Your task to perform on an android device: turn on showing notifications on the lock screen Image 0: 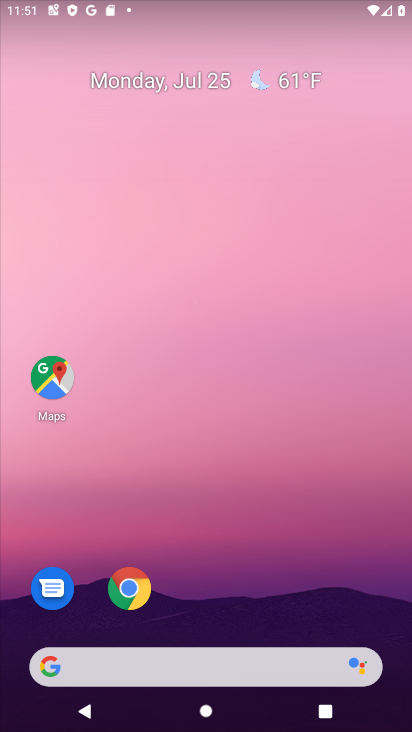
Step 0: drag from (219, 572) to (245, 106)
Your task to perform on an android device: turn on showing notifications on the lock screen Image 1: 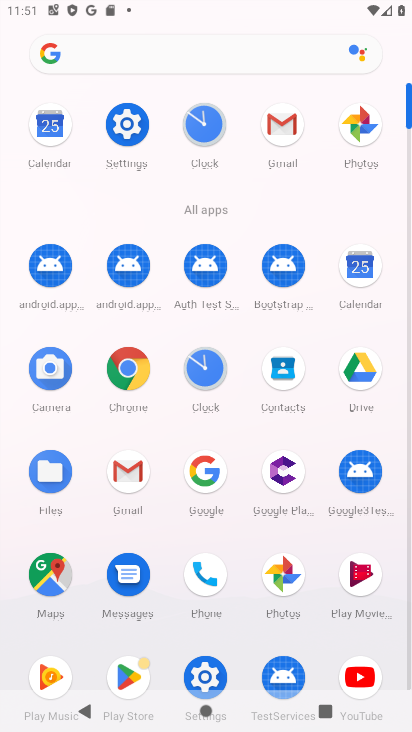
Step 1: click (121, 116)
Your task to perform on an android device: turn on showing notifications on the lock screen Image 2: 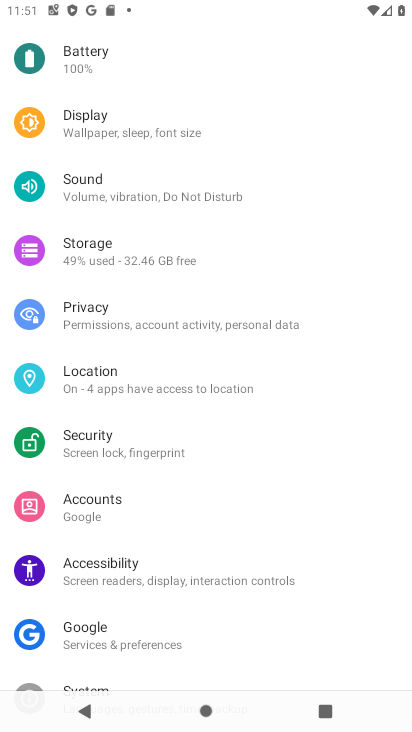
Step 2: drag from (113, 103) to (159, 517)
Your task to perform on an android device: turn on showing notifications on the lock screen Image 3: 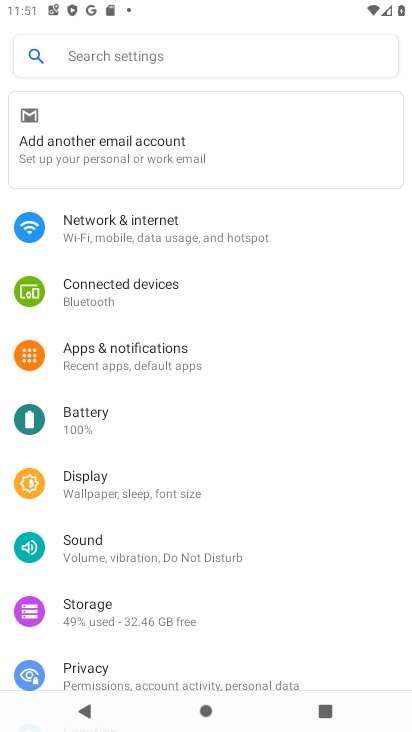
Step 3: click (193, 347)
Your task to perform on an android device: turn on showing notifications on the lock screen Image 4: 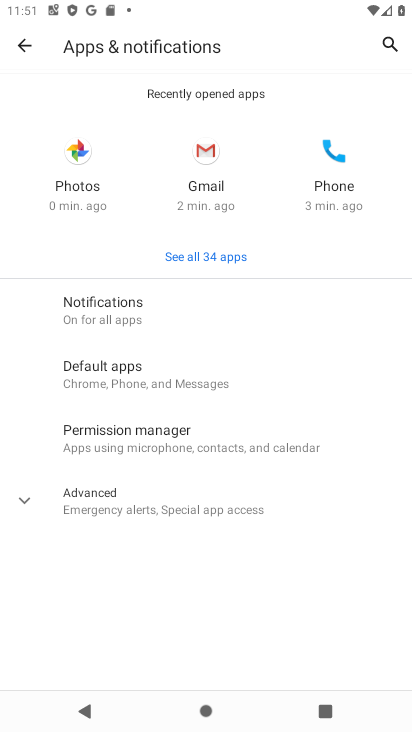
Step 4: click (96, 314)
Your task to perform on an android device: turn on showing notifications on the lock screen Image 5: 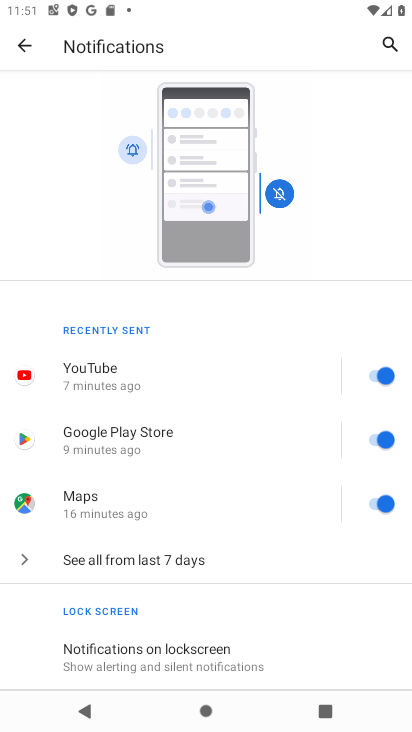
Step 5: click (240, 662)
Your task to perform on an android device: turn on showing notifications on the lock screen Image 6: 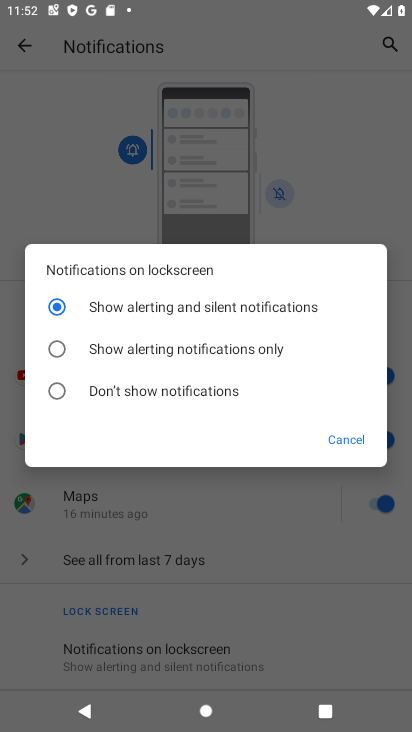
Step 6: click (64, 351)
Your task to perform on an android device: turn on showing notifications on the lock screen Image 7: 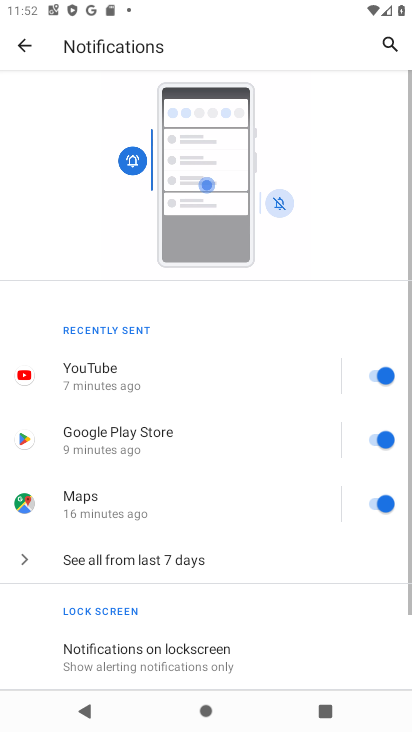
Step 7: task complete